Your task to perform on an android device: Go to Maps Image 0: 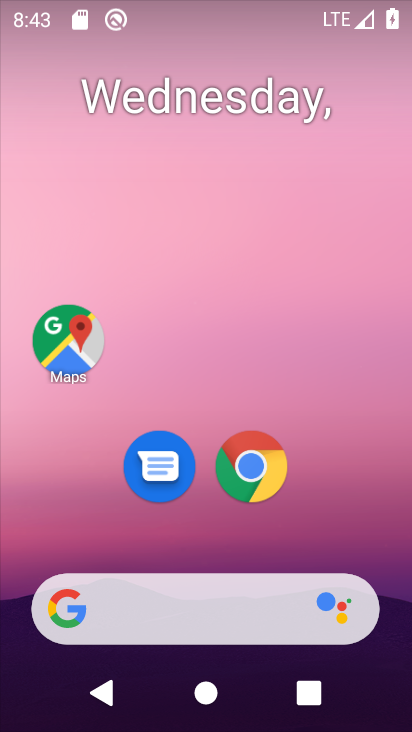
Step 0: drag from (233, 723) to (235, 110)
Your task to perform on an android device: Go to Maps Image 1: 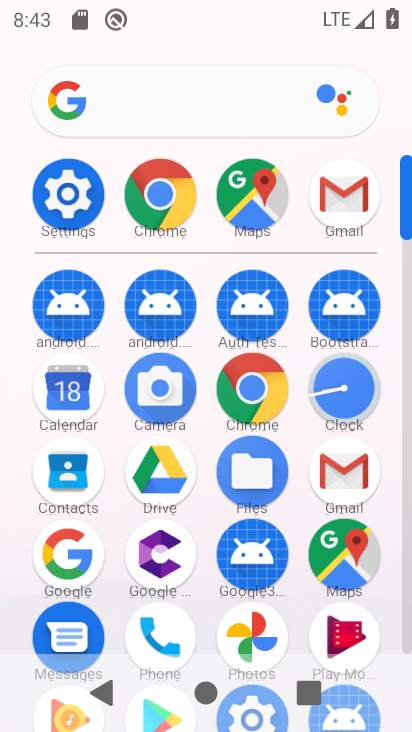
Step 1: click (334, 555)
Your task to perform on an android device: Go to Maps Image 2: 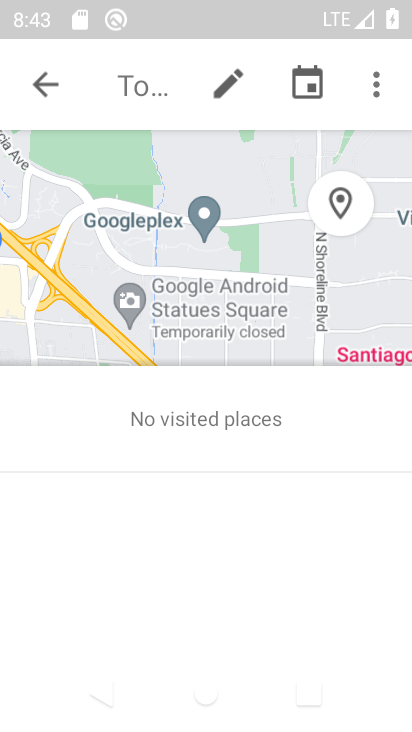
Step 2: task complete